Your task to perform on an android device: Go to location settings Image 0: 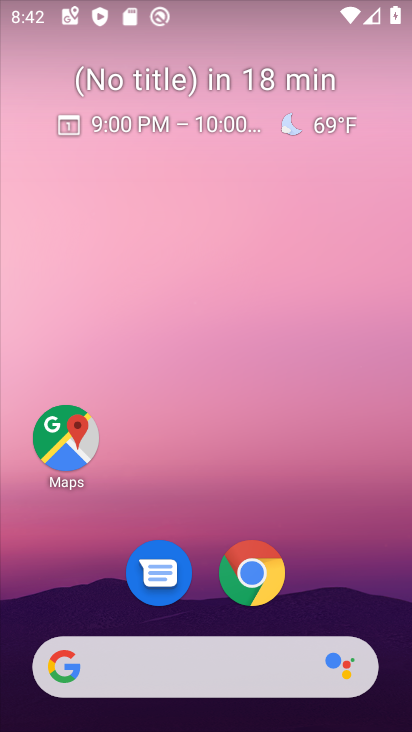
Step 0: drag from (211, 584) to (249, 295)
Your task to perform on an android device: Go to location settings Image 1: 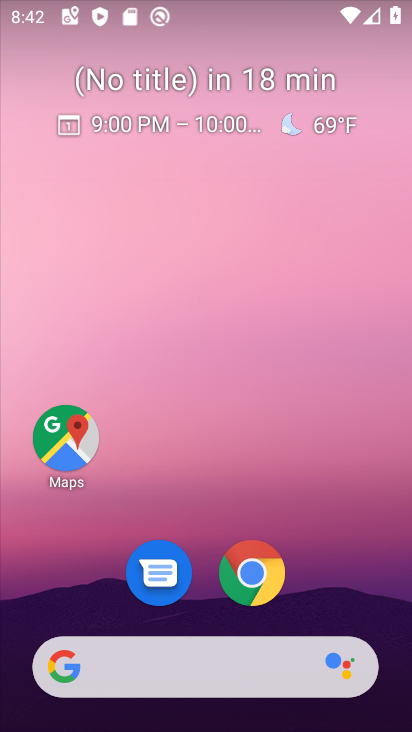
Step 1: drag from (208, 613) to (265, 90)
Your task to perform on an android device: Go to location settings Image 2: 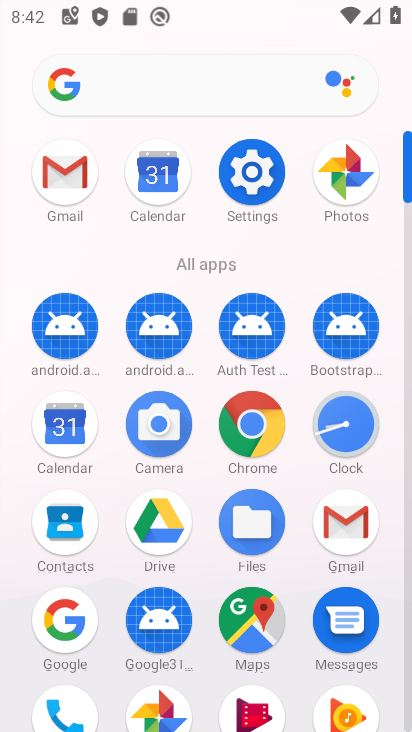
Step 2: click (264, 182)
Your task to perform on an android device: Go to location settings Image 3: 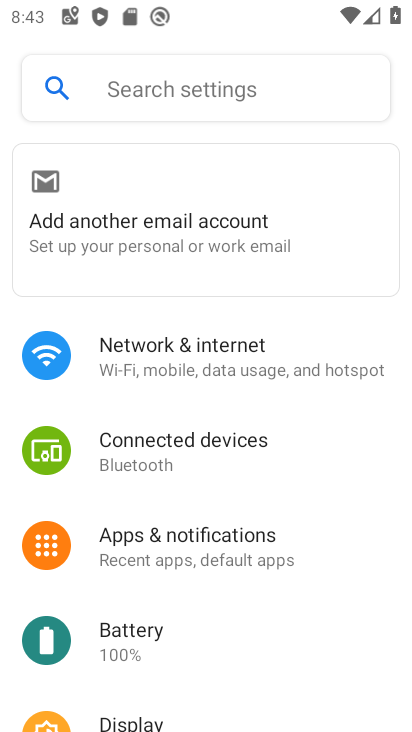
Step 3: drag from (196, 571) to (246, 243)
Your task to perform on an android device: Go to location settings Image 4: 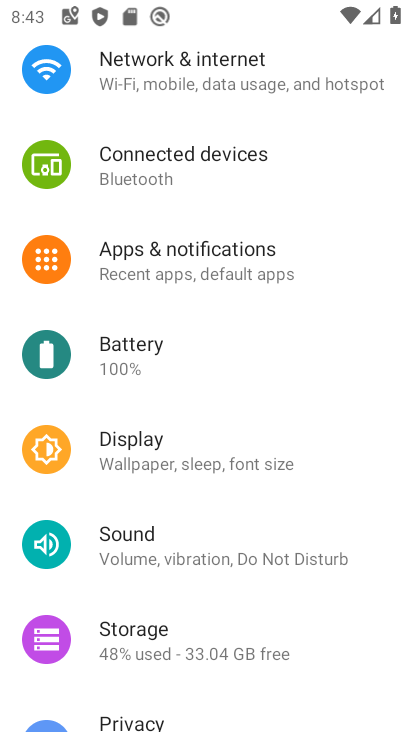
Step 4: drag from (161, 608) to (212, 289)
Your task to perform on an android device: Go to location settings Image 5: 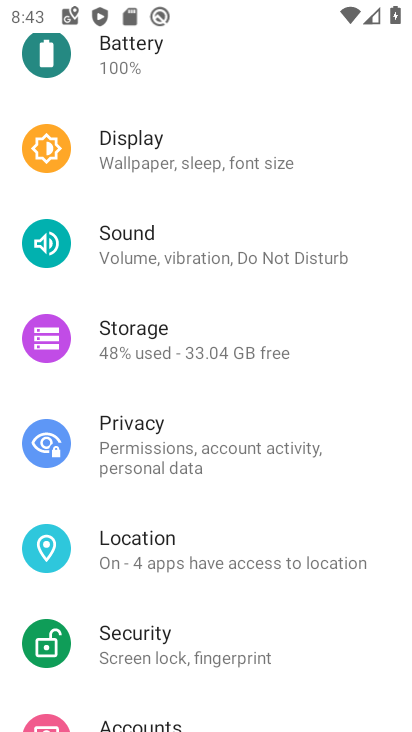
Step 5: click (182, 552)
Your task to perform on an android device: Go to location settings Image 6: 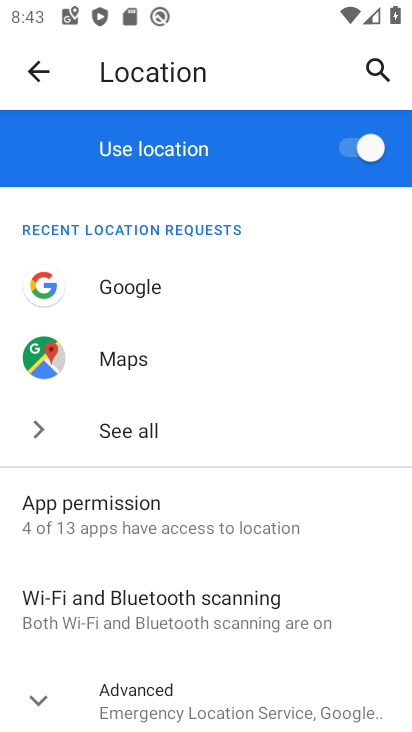
Step 6: task complete